Your task to perform on an android device: Open Chrome and go to the settings page Image 0: 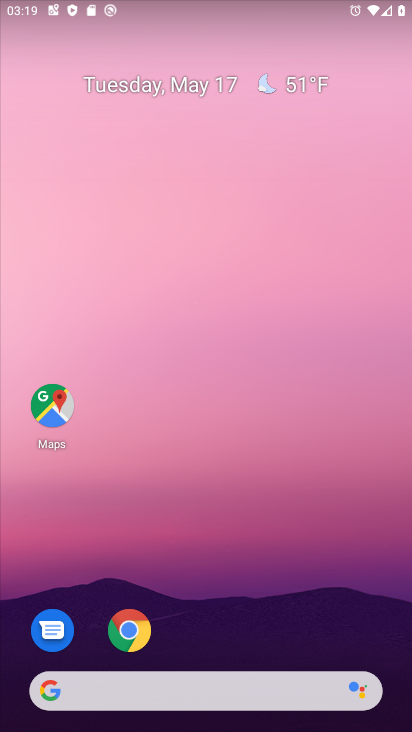
Step 0: click (123, 637)
Your task to perform on an android device: Open Chrome and go to the settings page Image 1: 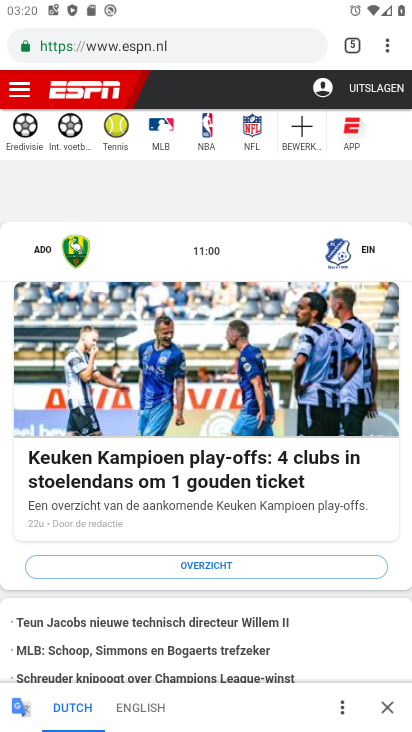
Step 1: task complete